Your task to perform on an android device: Do I have any events today? Image 0: 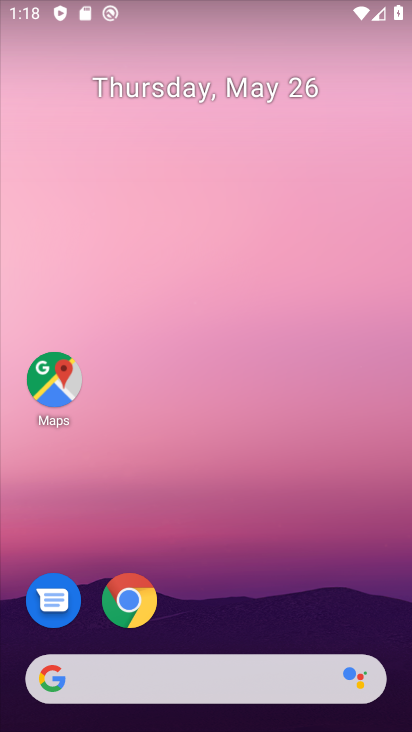
Step 0: drag from (272, 561) to (195, 99)
Your task to perform on an android device: Do I have any events today? Image 1: 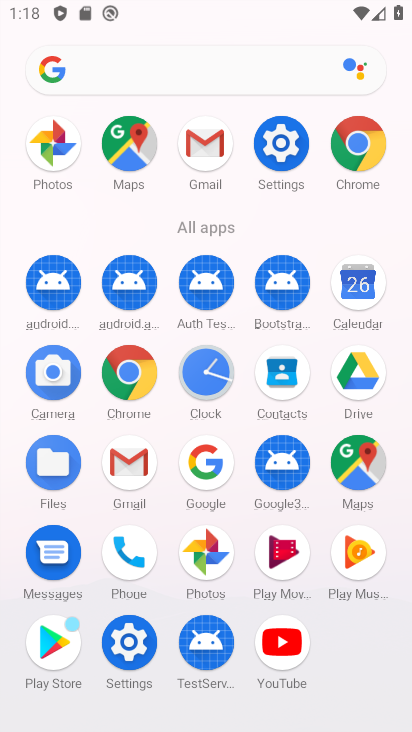
Step 1: click (355, 288)
Your task to perform on an android device: Do I have any events today? Image 2: 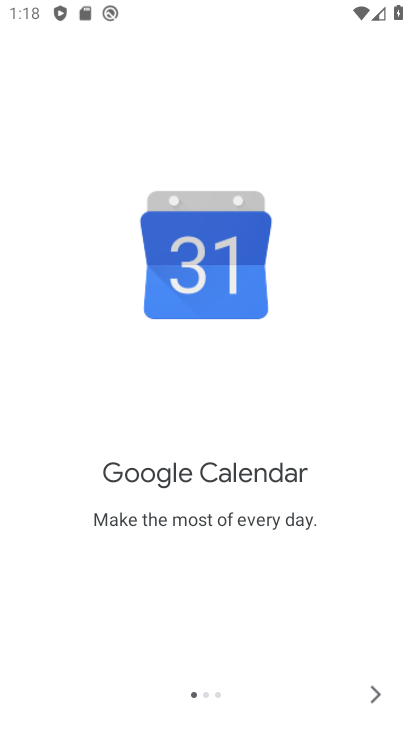
Step 2: click (375, 693)
Your task to perform on an android device: Do I have any events today? Image 3: 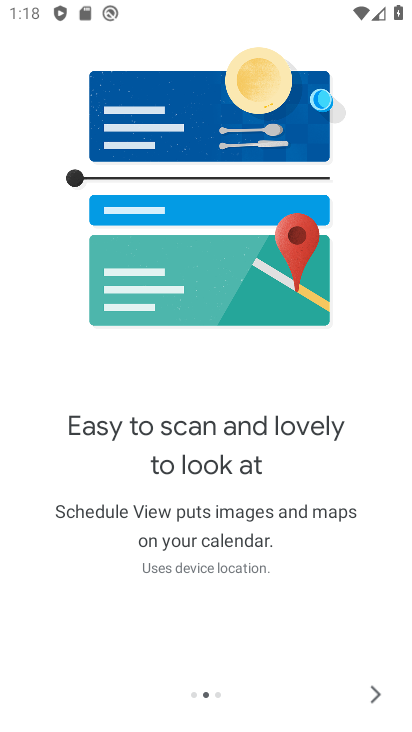
Step 3: click (375, 693)
Your task to perform on an android device: Do I have any events today? Image 4: 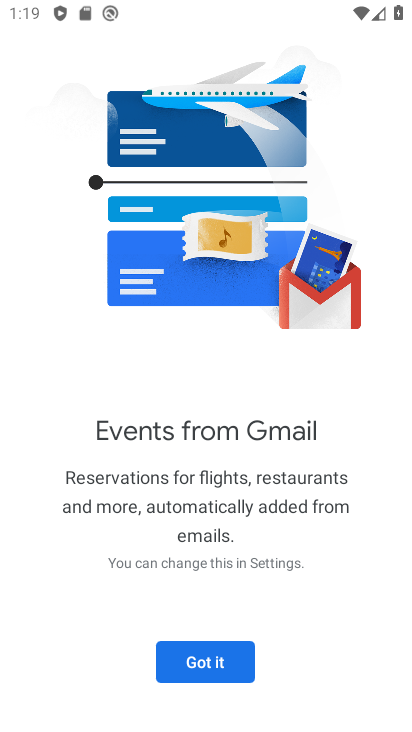
Step 4: click (205, 663)
Your task to perform on an android device: Do I have any events today? Image 5: 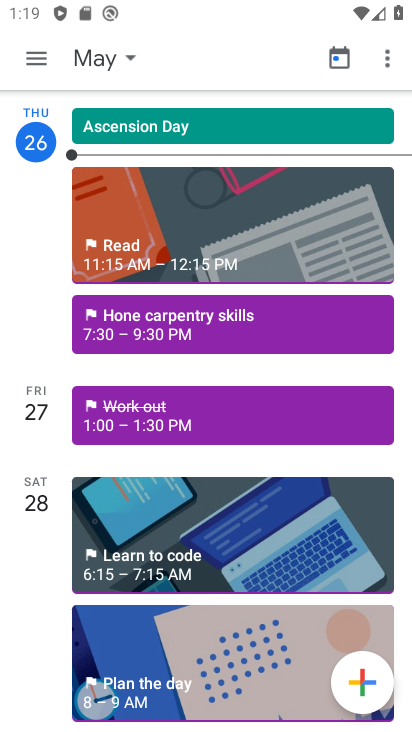
Step 5: click (131, 54)
Your task to perform on an android device: Do I have any events today? Image 6: 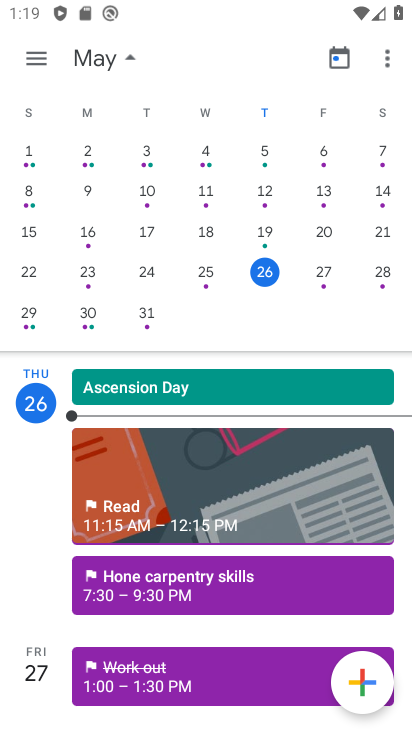
Step 6: click (267, 269)
Your task to perform on an android device: Do I have any events today? Image 7: 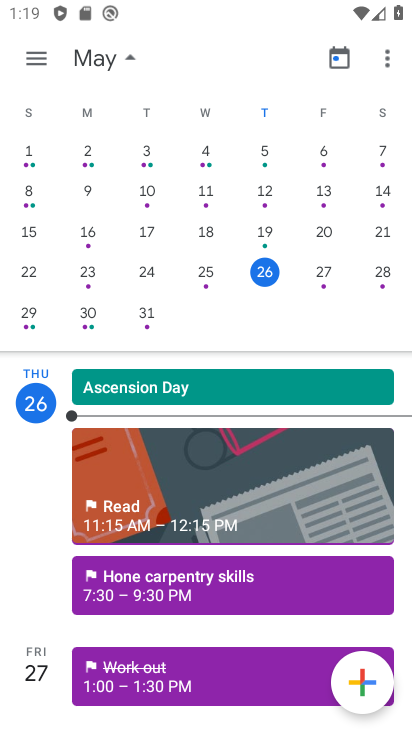
Step 7: click (31, 65)
Your task to perform on an android device: Do I have any events today? Image 8: 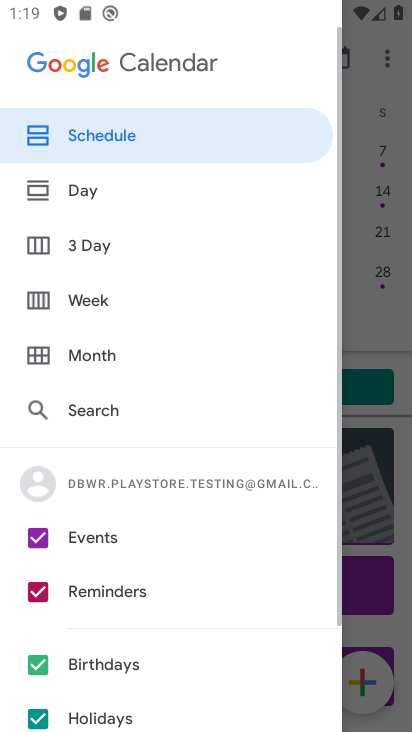
Step 8: click (108, 138)
Your task to perform on an android device: Do I have any events today? Image 9: 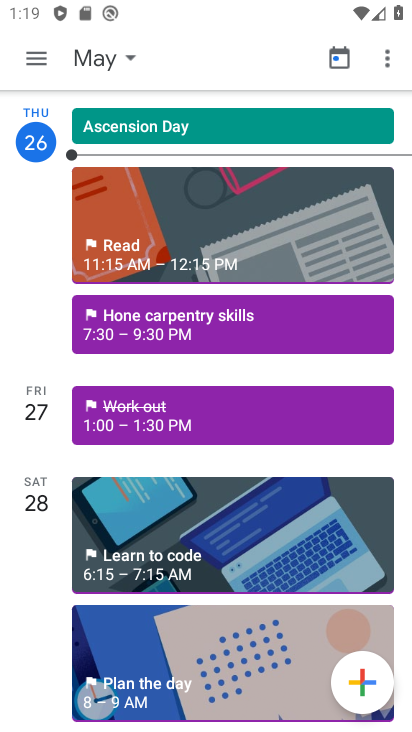
Step 9: task complete